Your task to perform on an android device: refresh tabs in the chrome app Image 0: 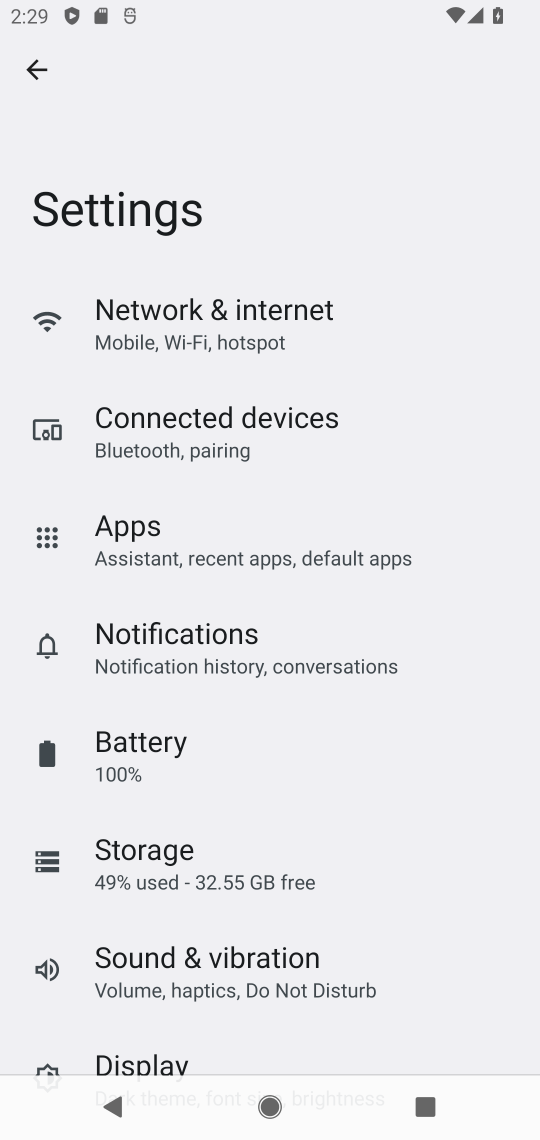
Step 0: press home button
Your task to perform on an android device: refresh tabs in the chrome app Image 1: 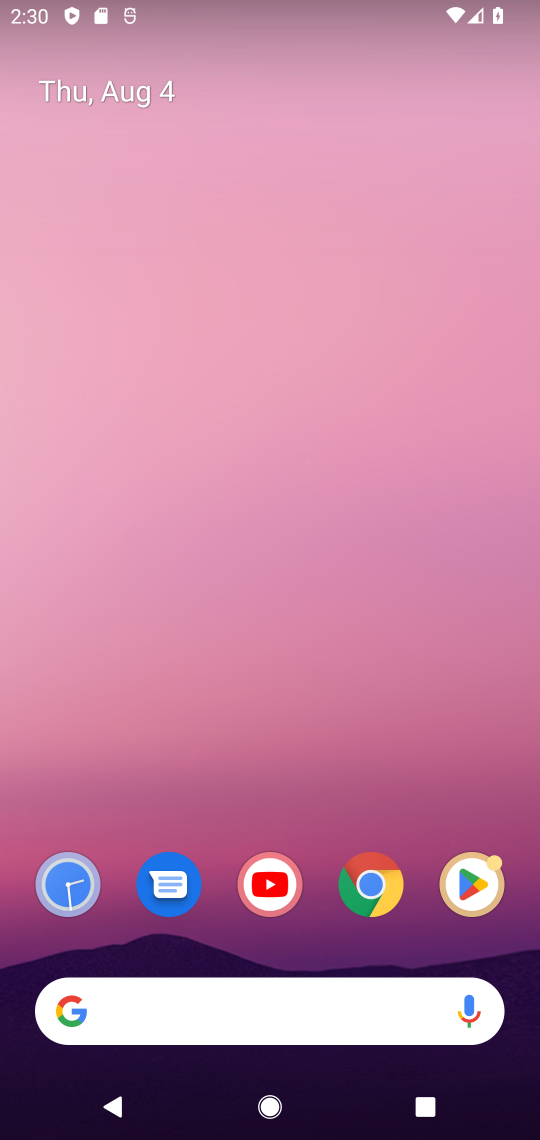
Step 1: drag from (224, 913) to (298, 147)
Your task to perform on an android device: refresh tabs in the chrome app Image 2: 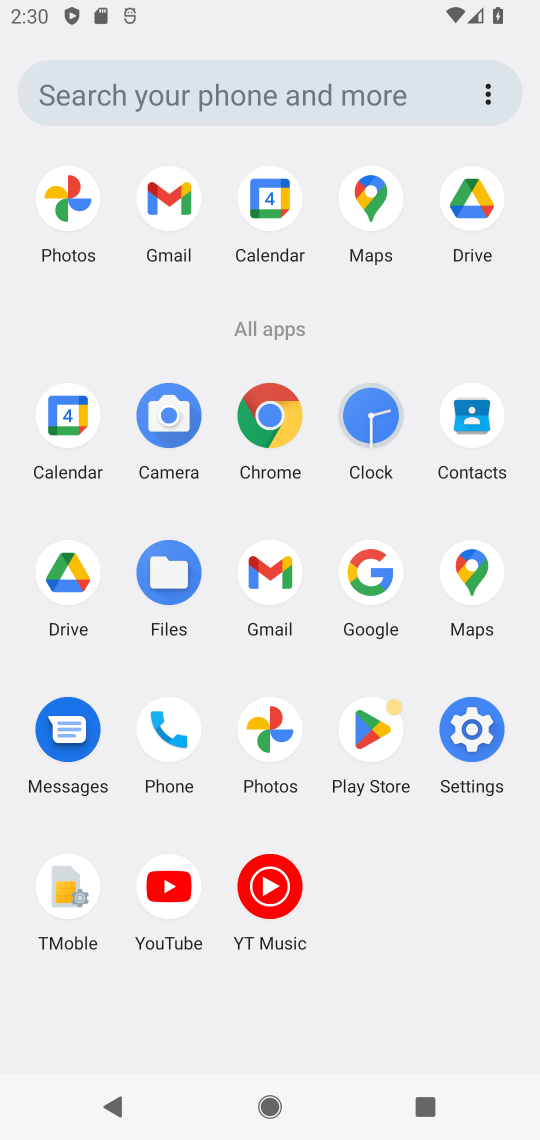
Step 2: click (273, 407)
Your task to perform on an android device: refresh tabs in the chrome app Image 3: 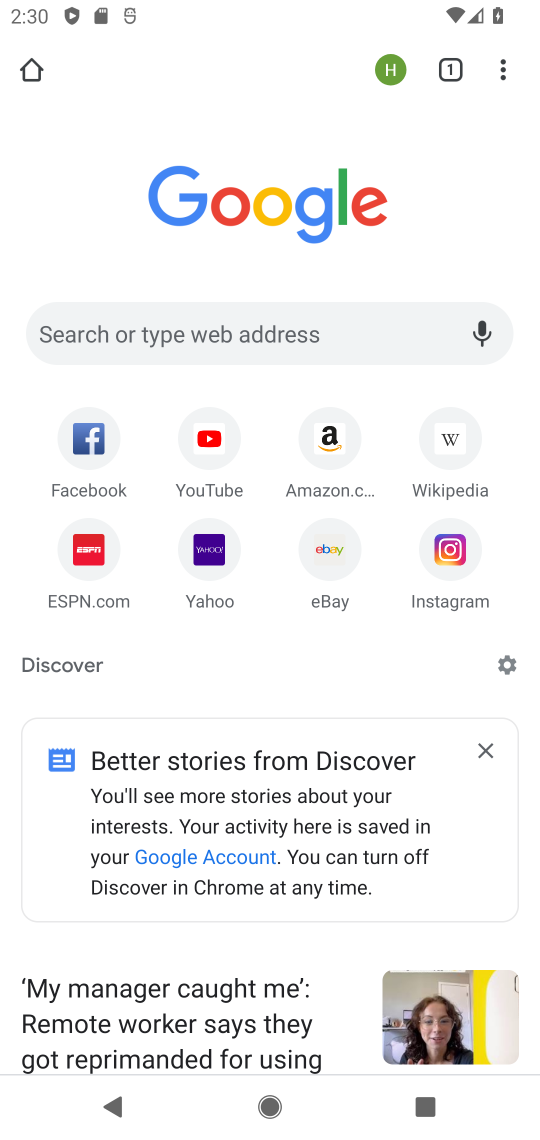
Step 3: click (516, 60)
Your task to perform on an android device: refresh tabs in the chrome app Image 4: 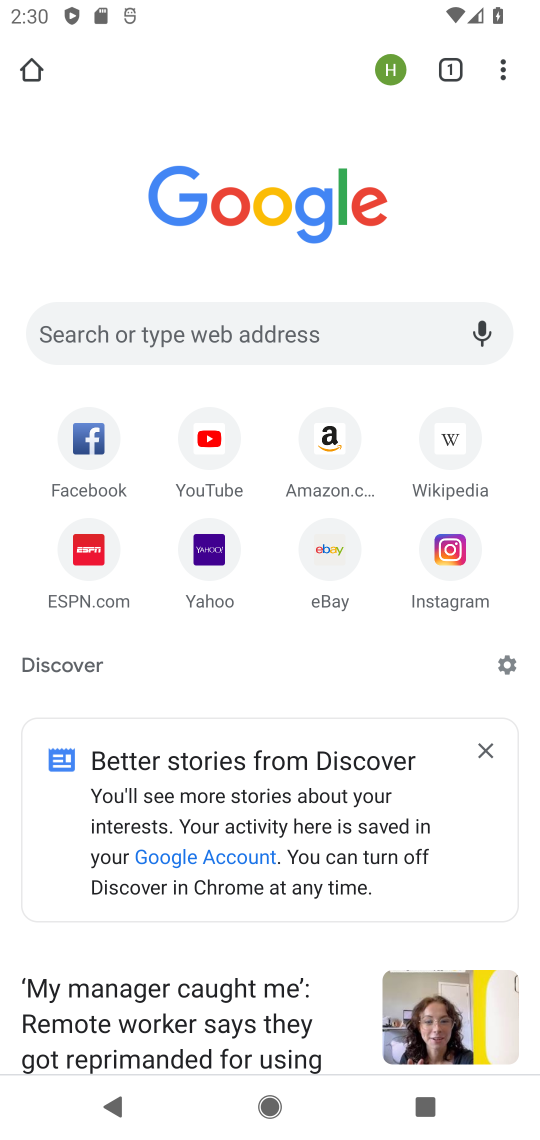
Step 4: click (516, 60)
Your task to perform on an android device: refresh tabs in the chrome app Image 5: 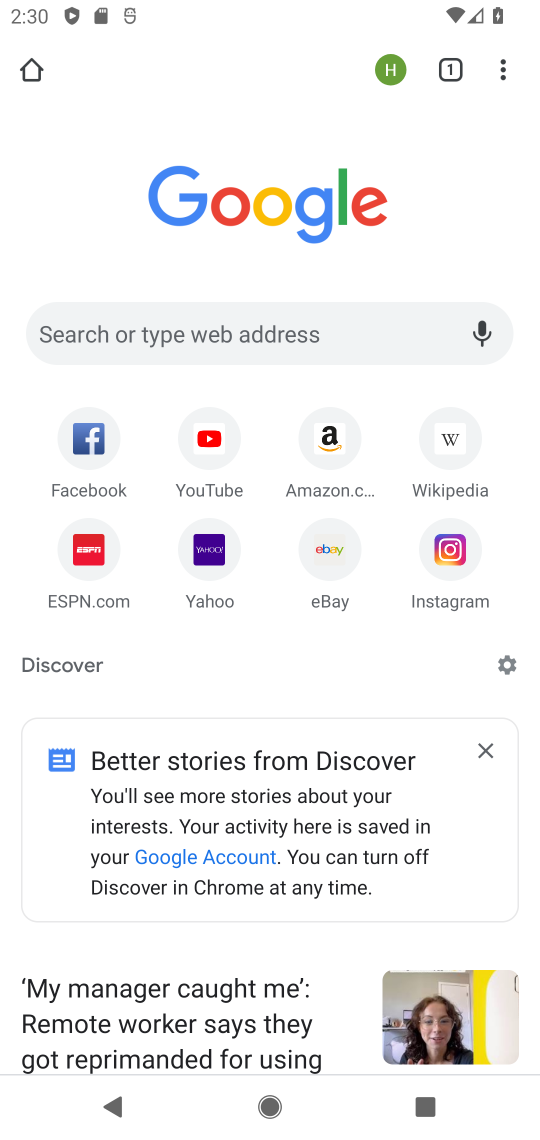
Step 5: click (510, 78)
Your task to perform on an android device: refresh tabs in the chrome app Image 6: 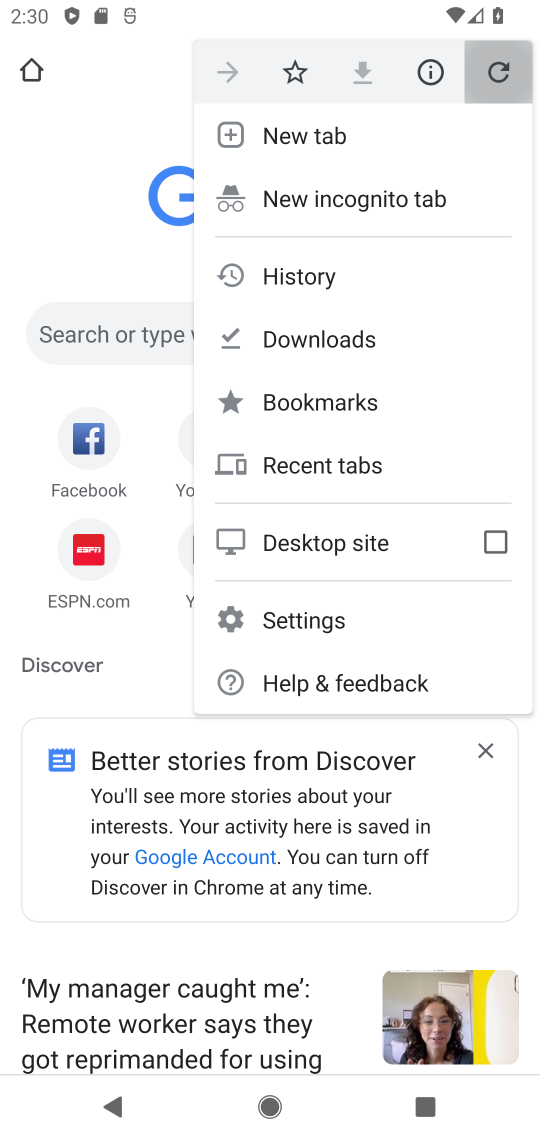
Step 6: click (495, 59)
Your task to perform on an android device: refresh tabs in the chrome app Image 7: 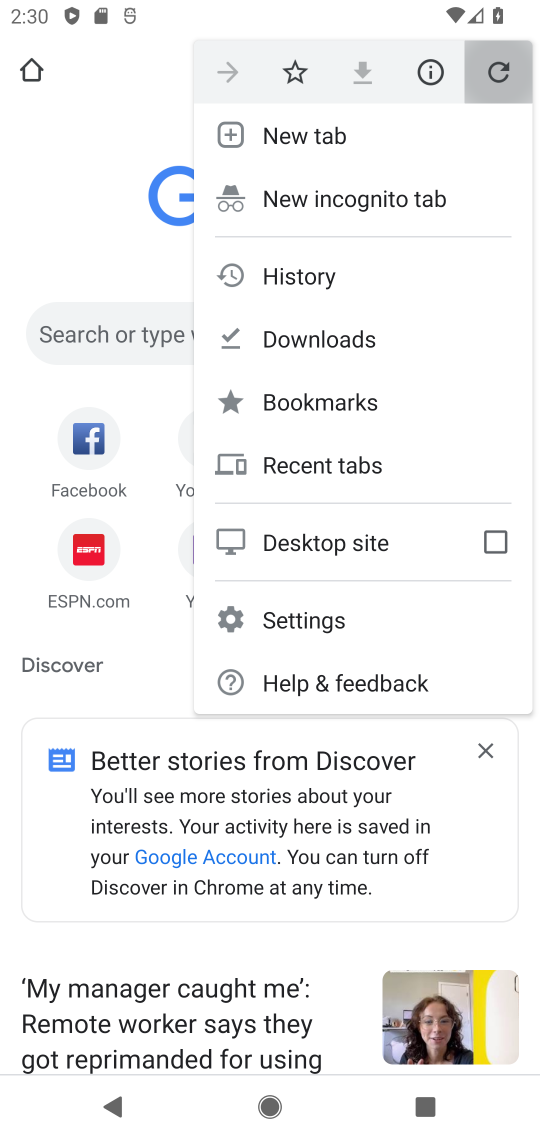
Step 7: click (495, 75)
Your task to perform on an android device: refresh tabs in the chrome app Image 8: 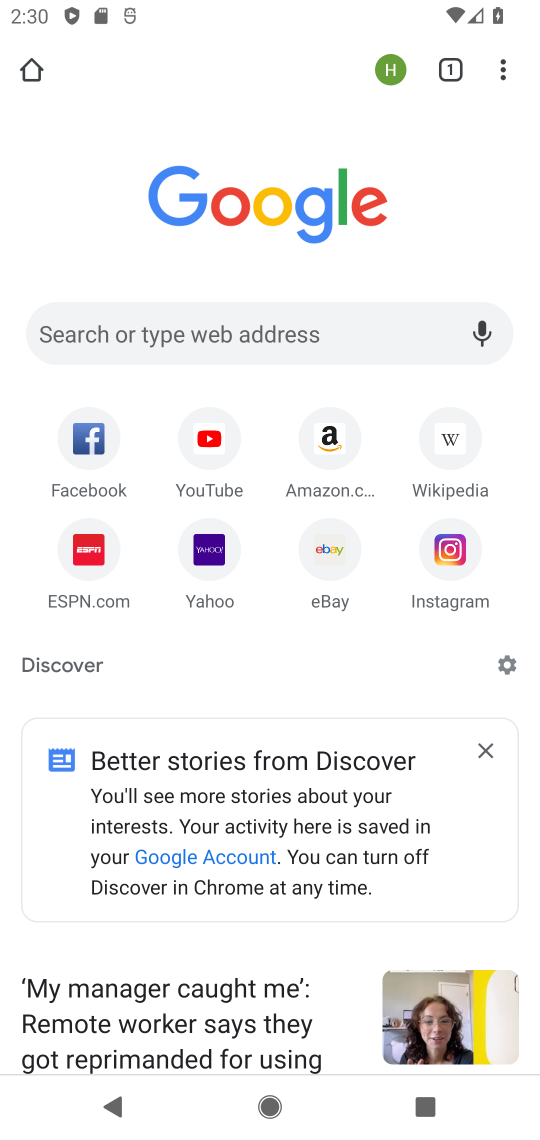
Step 8: click (495, 72)
Your task to perform on an android device: refresh tabs in the chrome app Image 9: 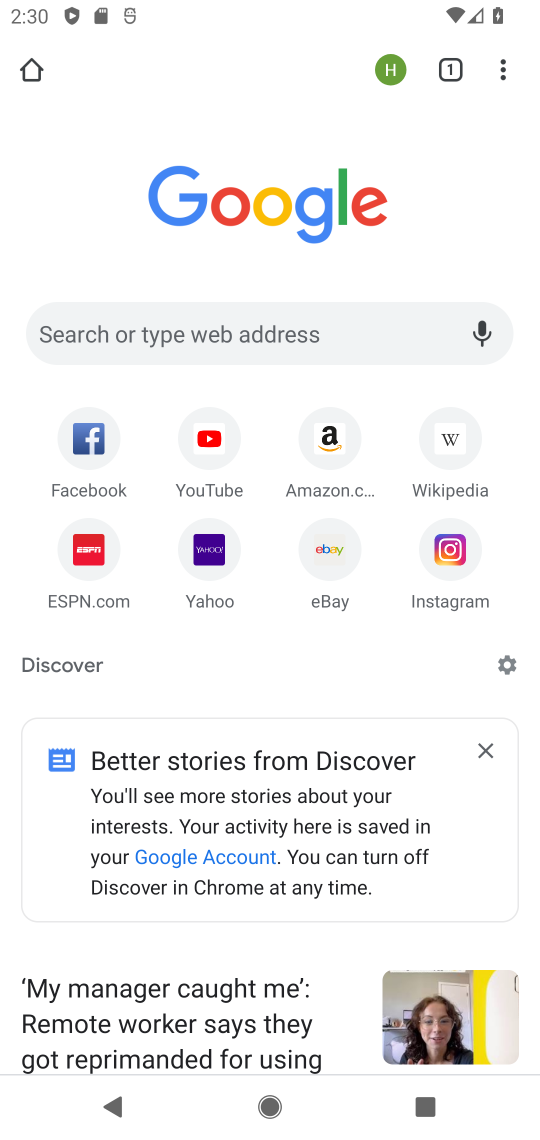
Step 9: task complete